Your task to perform on an android device: find snoozed emails in the gmail app Image 0: 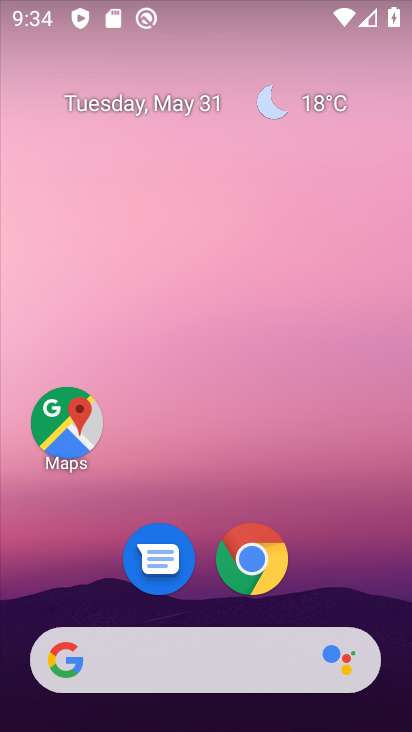
Step 0: drag from (354, 608) to (410, 53)
Your task to perform on an android device: find snoozed emails in the gmail app Image 1: 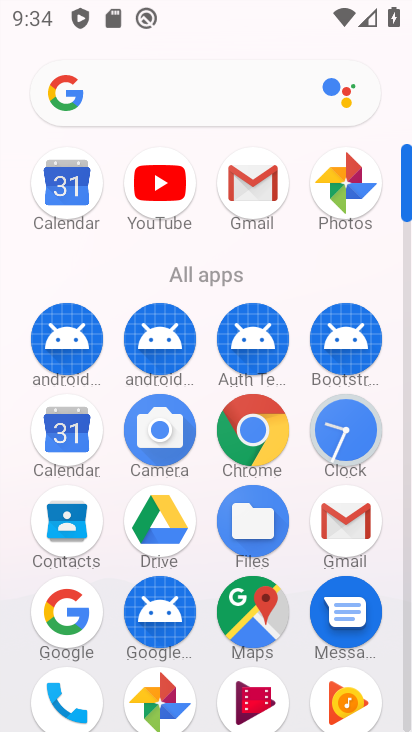
Step 1: click (255, 159)
Your task to perform on an android device: find snoozed emails in the gmail app Image 2: 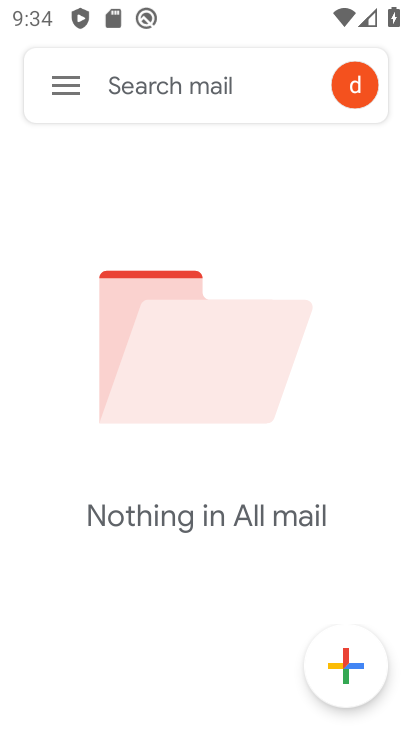
Step 2: click (42, 83)
Your task to perform on an android device: find snoozed emails in the gmail app Image 3: 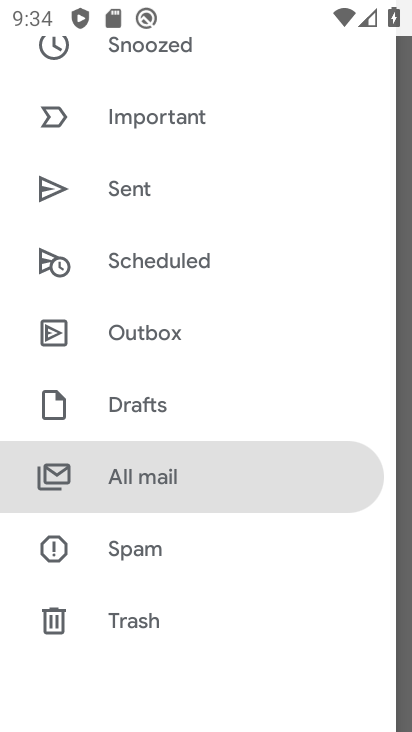
Step 3: drag from (168, 195) to (167, 400)
Your task to perform on an android device: find snoozed emails in the gmail app Image 4: 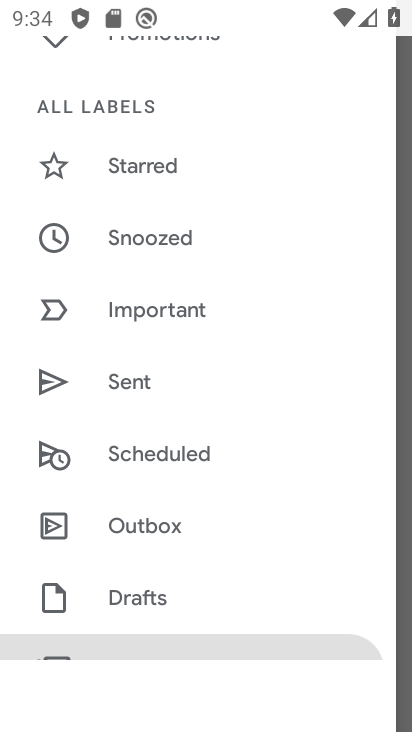
Step 4: click (194, 233)
Your task to perform on an android device: find snoozed emails in the gmail app Image 5: 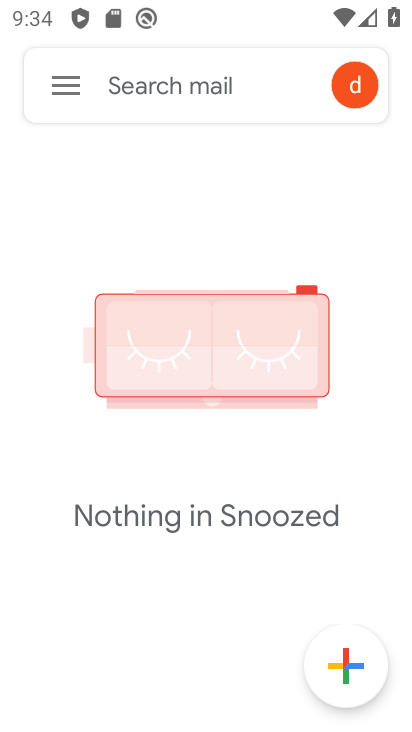
Step 5: task complete